Your task to perform on an android device: turn off smart reply in the gmail app Image 0: 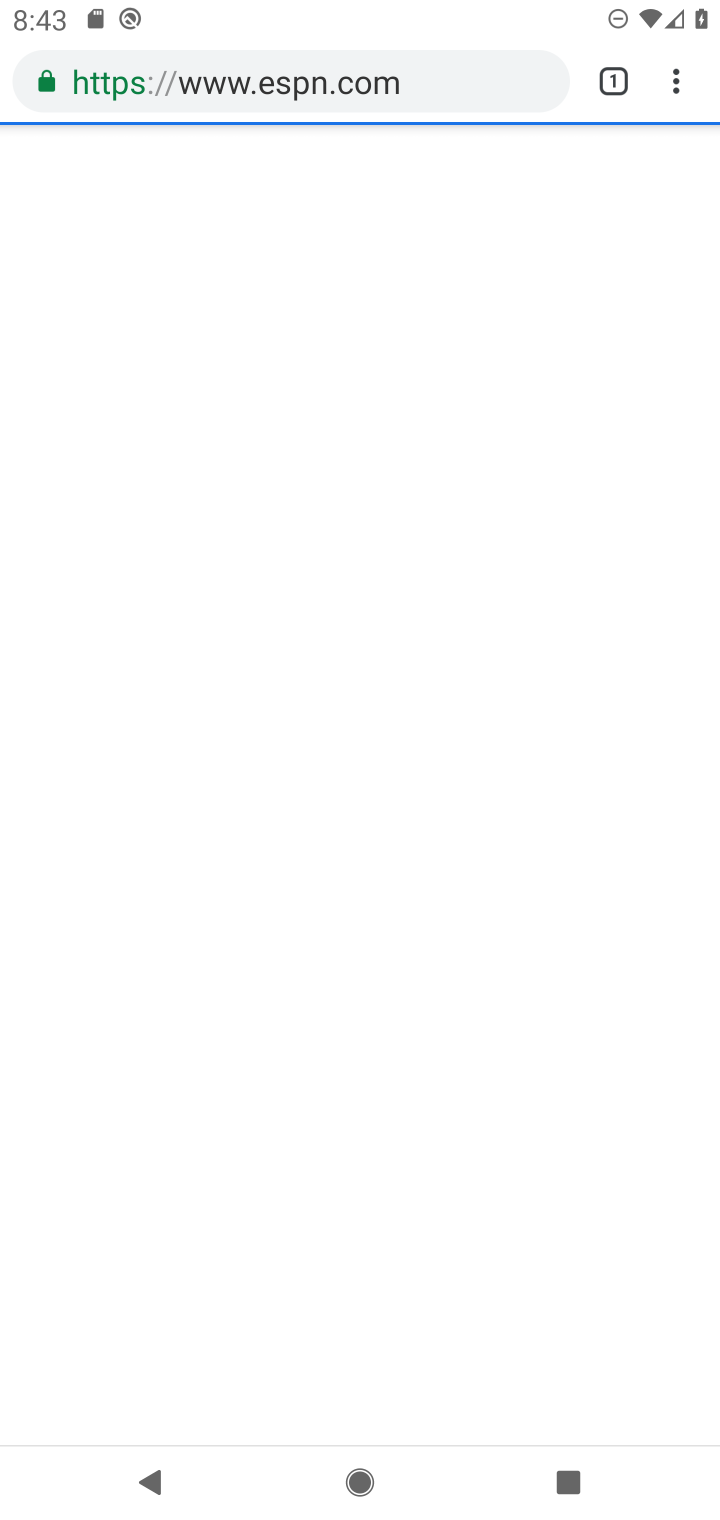
Step 0: press home button
Your task to perform on an android device: turn off smart reply in the gmail app Image 1: 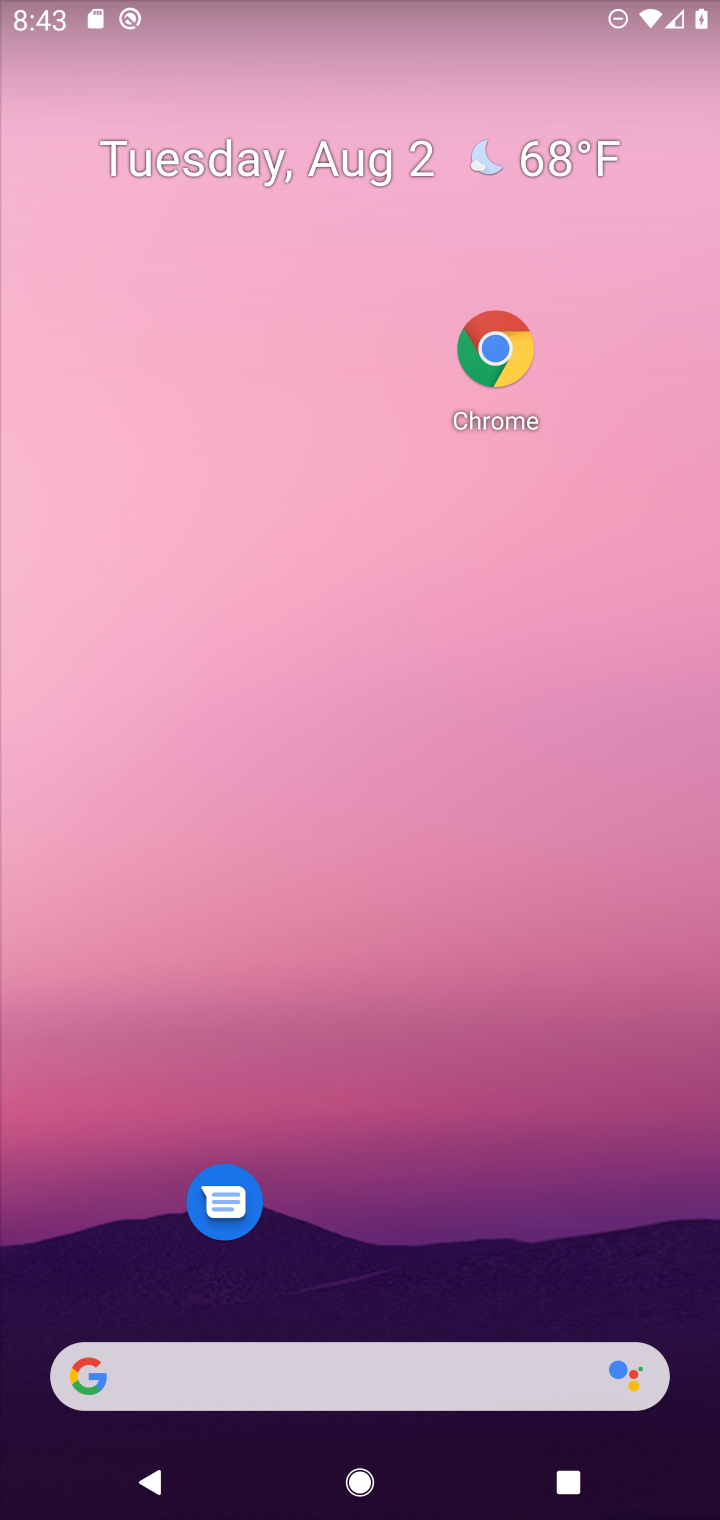
Step 1: drag from (347, 423) to (338, 123)
Your task to perform on an android device: turn off smart reply in the gmail app Image 2: 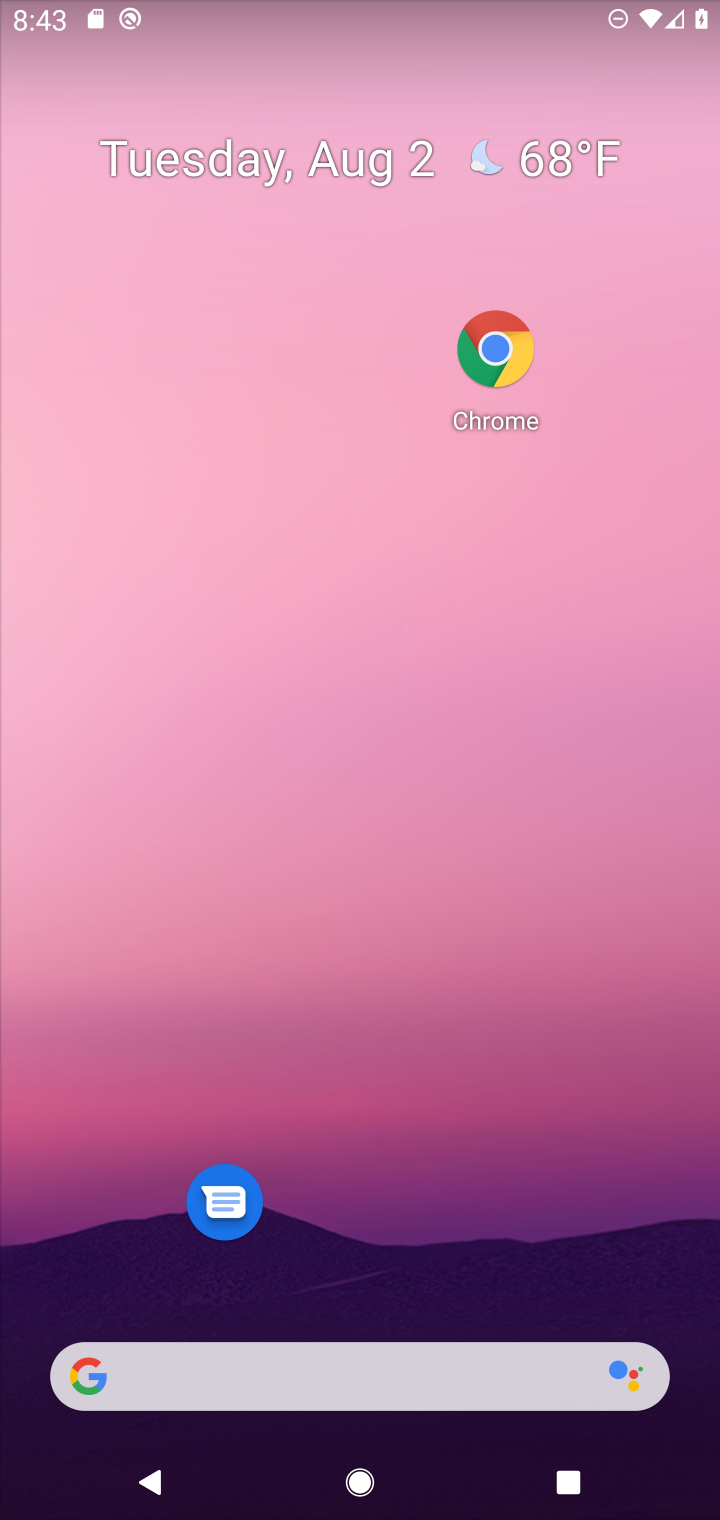
Step 2: drag from (332, 1146) to (318, 119)
Your task to perform on an android device: turn off smart reply in the gmail app Image 3: 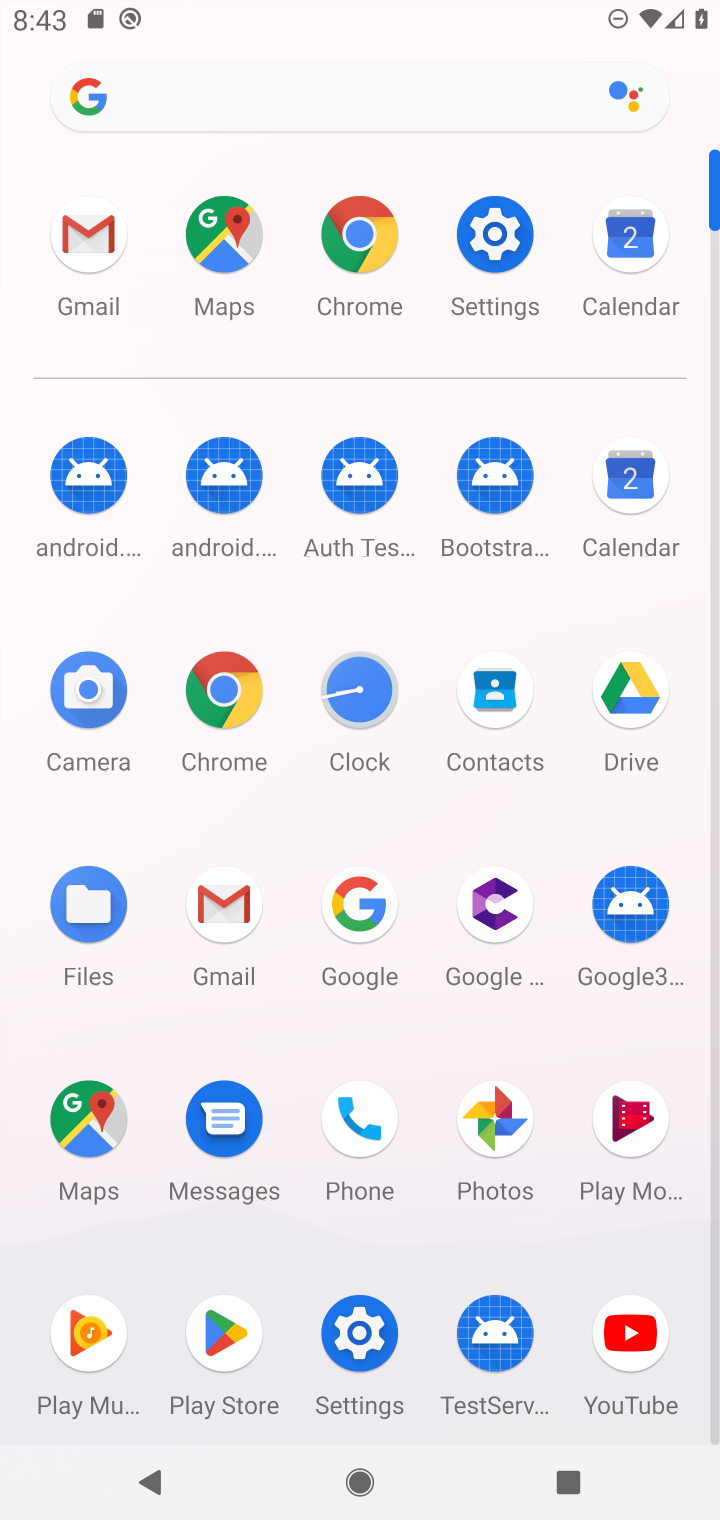
Step 3: click (75, 243)
Your task to perform on an android device: turn off smart reply in the gmail app Image 4: 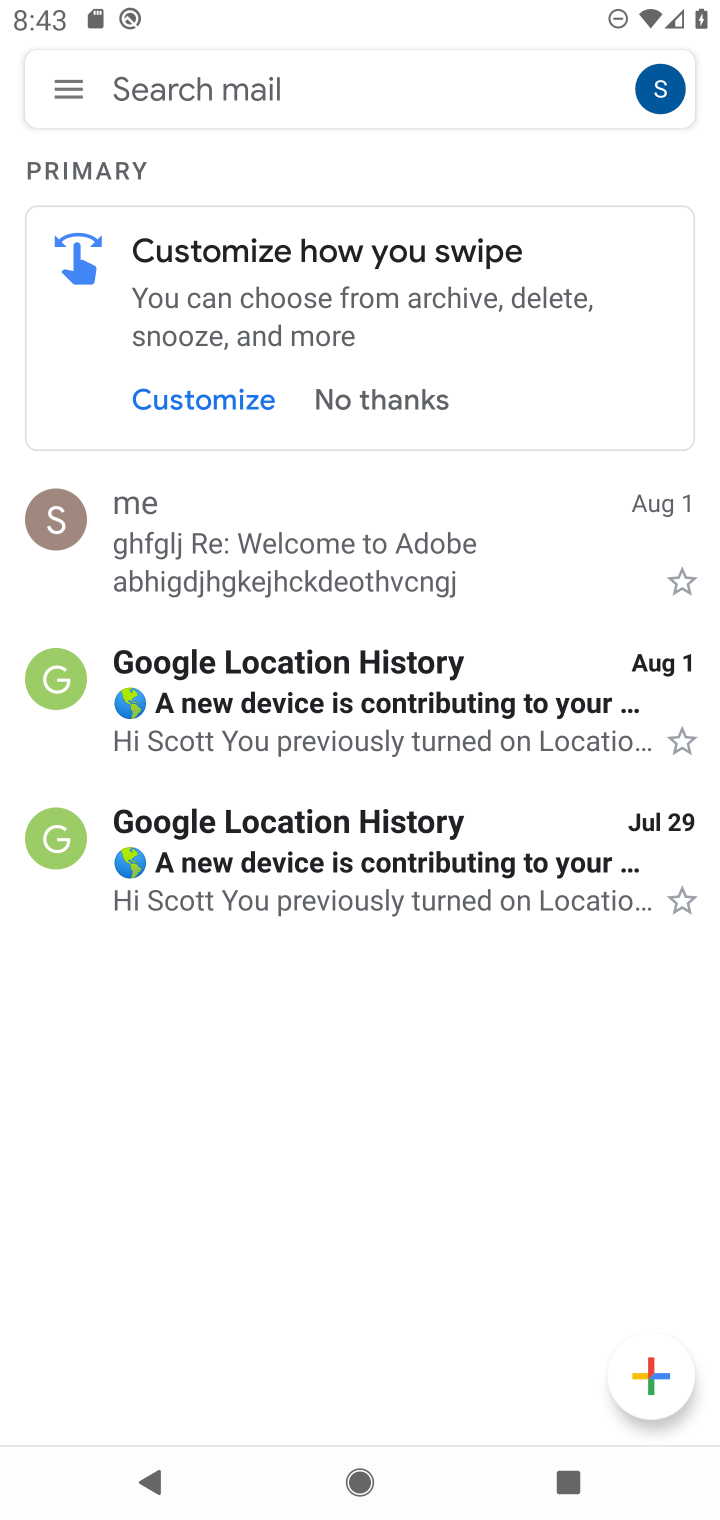
Step 4: click (73, 88)
Your task to perform on an android device: turn off smart reply in the gmail app Image 5: 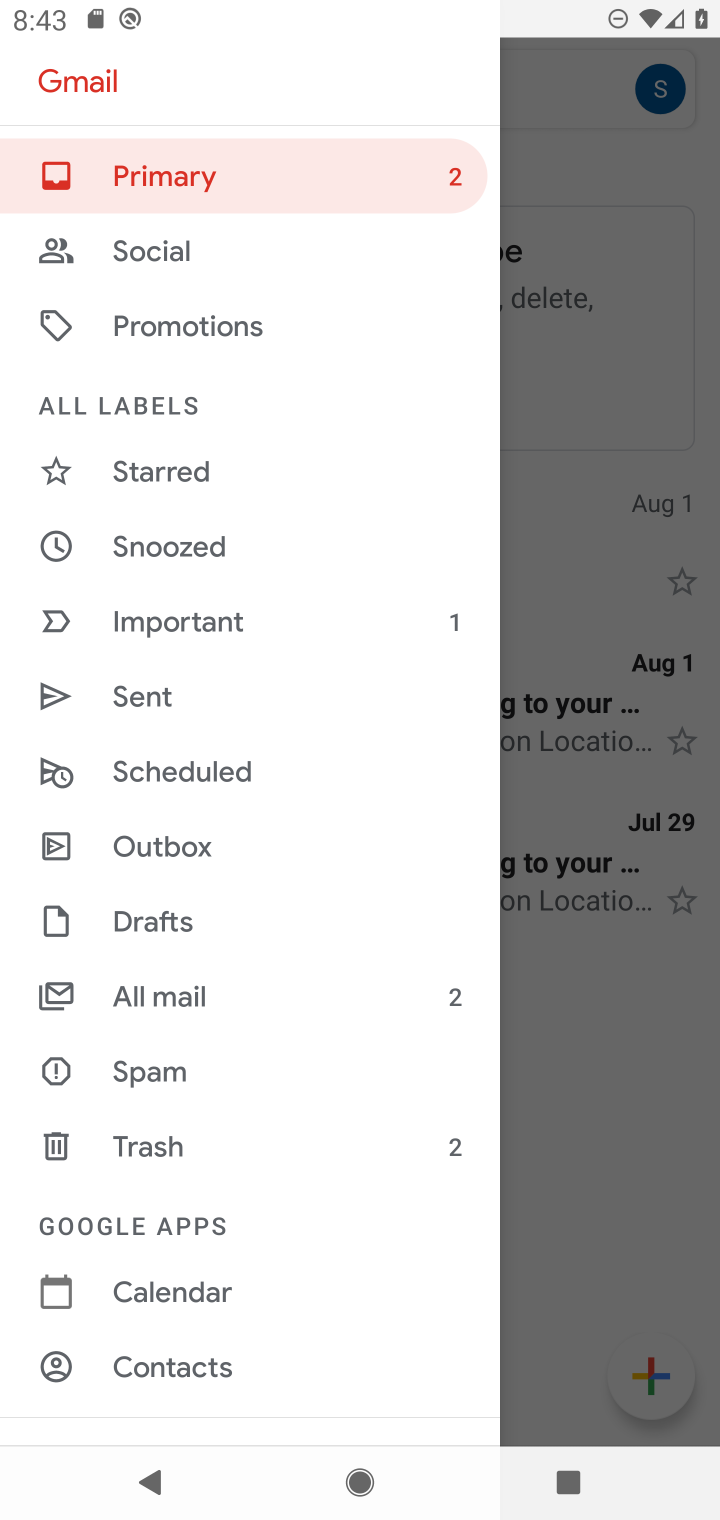
Step 5: drag from (219, 1270) to (219, 774)
Your task to perform on an android device: turn off smart reply in the gmail app Image 6: 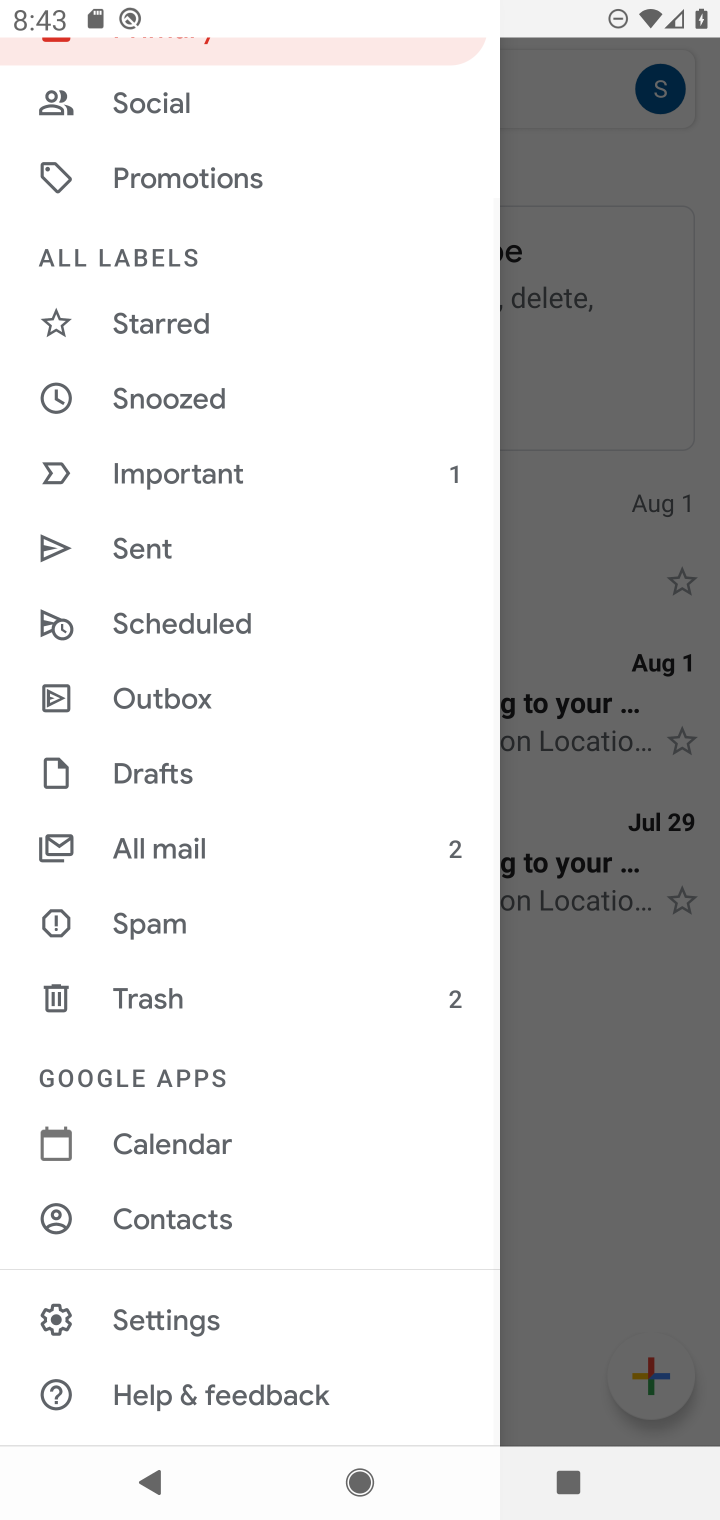
Step 6: click (184, 1320)
Your task to perform on an android device: turn off smart reply in the gmail app Image 7: 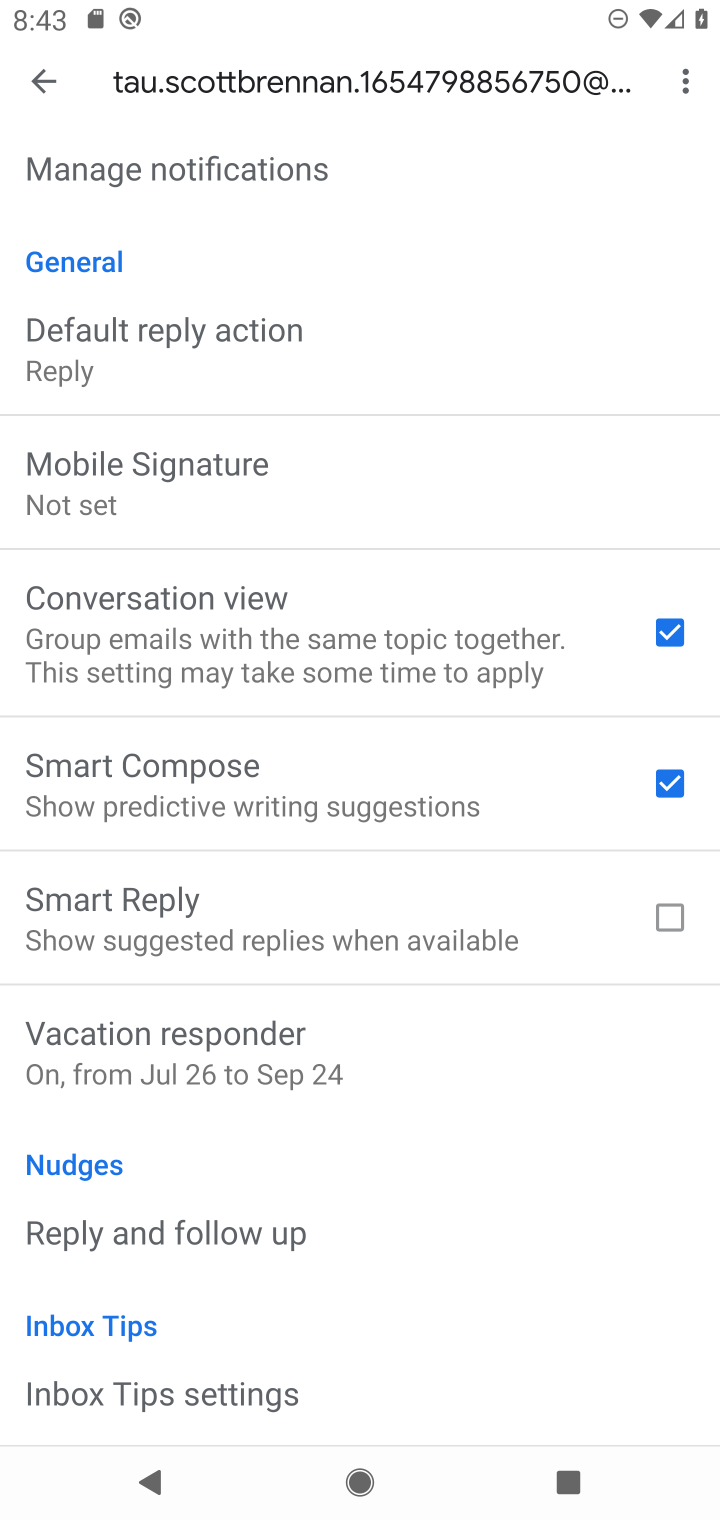
Step 7: task complete